Your task to perform on an android device: install app "Google Duo" Image 0: 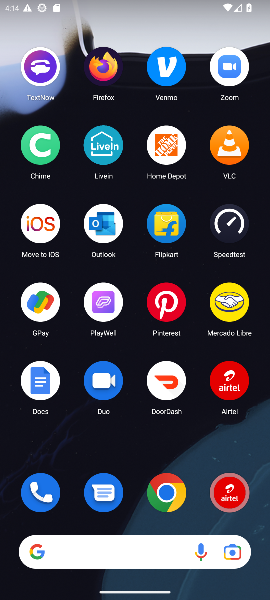
Step 0: drag from (129, 459) to (180, 0)
Your task to perform on an android device: install app "Google Duo" Image 1: 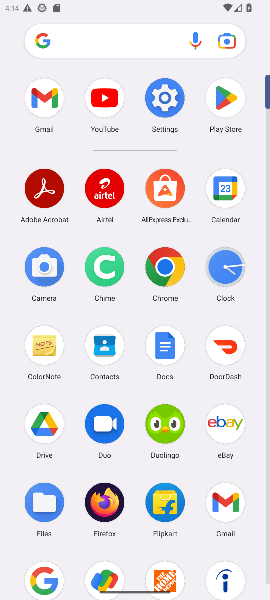
Step 1: click (226, 99)
Your task to perform on an android device: install app "Google Duo" Image 2: 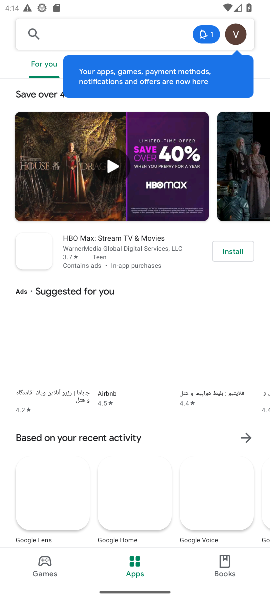
Step 2: click (171, 41)
Your task to perform on an android device: install app "Google Duo" Image 3: 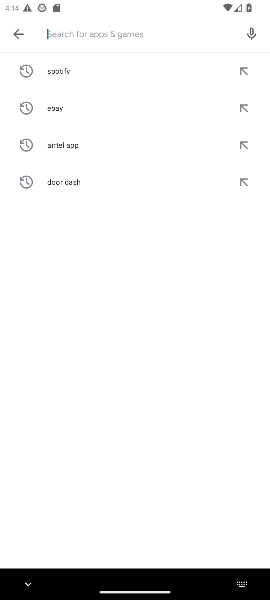
Step 3: type "google duo"
Your task to perform on an android device: install app "Google Duo" Image 4: 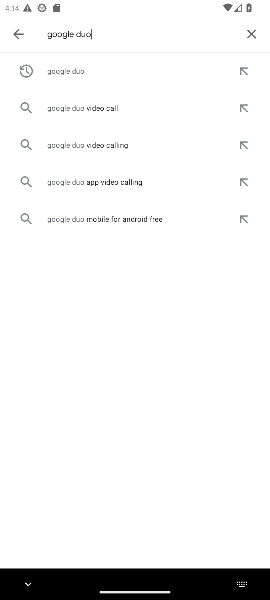
Step 4: click (107, 67)
Your task to perform on an android device: install app "Google Duo" Image 5: 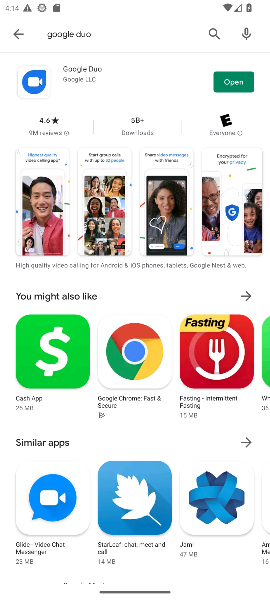
Step 5: click (244, 79)
Your task to perform on an android device: install app "Google Duo" Image 6: 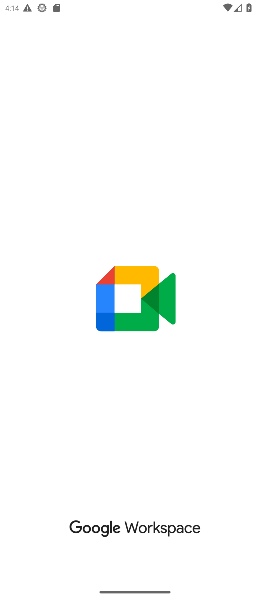
Step 6: task complete